Your task to perform on an android device: Go to accessibility settings Image 0: 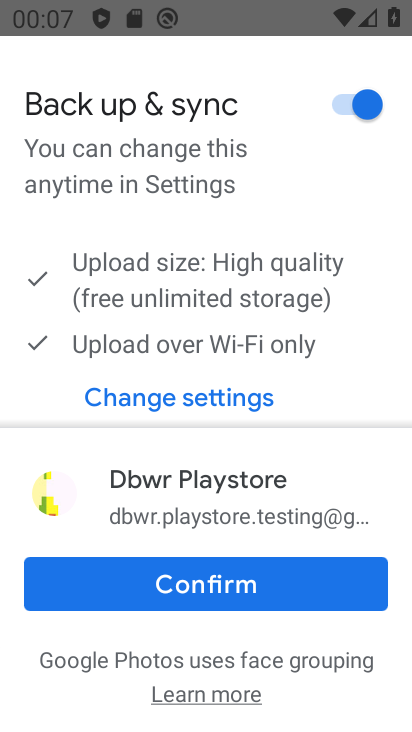
Step 0: press home button
Your task to perform on an android device: Go to accessibility settings Image 1: 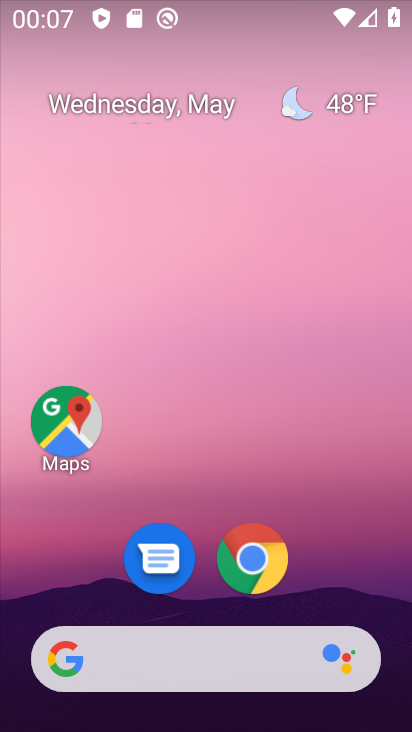
Step 1: drag from (372, 563) to (371, 138)
Your task to perform on an android device: Go to accessibility settings Image 2: 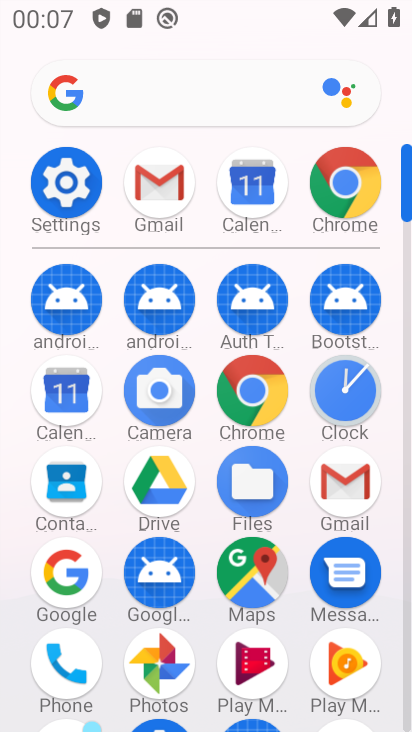
Step 2: click (46, 183)
Your task to perform on an android device: Go to accessibility settings Image 3: 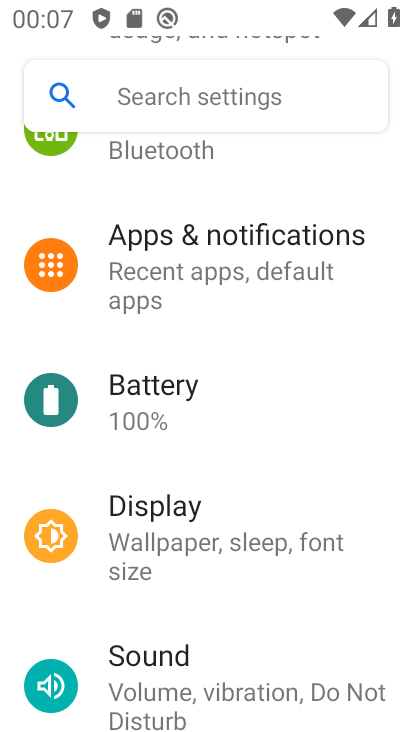
Step 3: drag from (250, 211) to (267, 483)
Your task to perform on an android device: Go to accessibility settings Image 4: 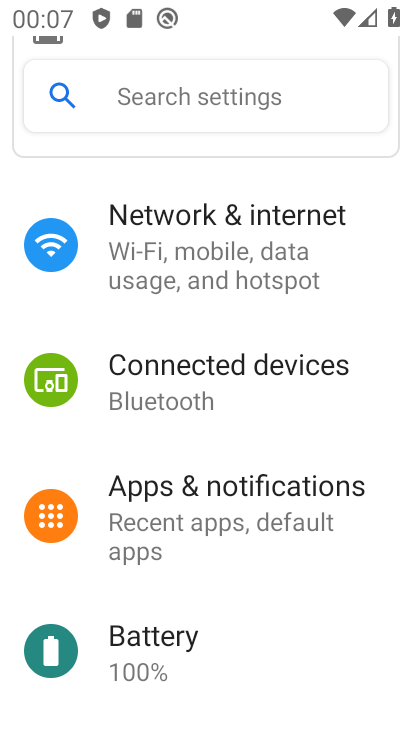
Step 4: drag from (254, 571) to (256, 338)
Your task to perform on an android device: Go to accessibility settings Image 5: 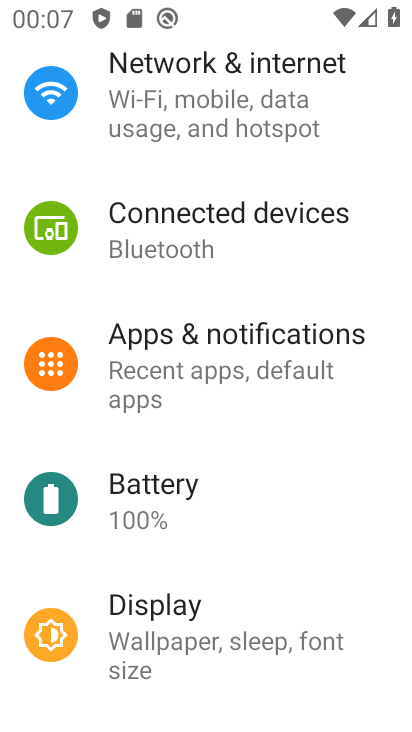
Step 5: drag from (270, 608) to (286, 259)
Your task to perform on an android device: Go to accessibility settings Image 6: 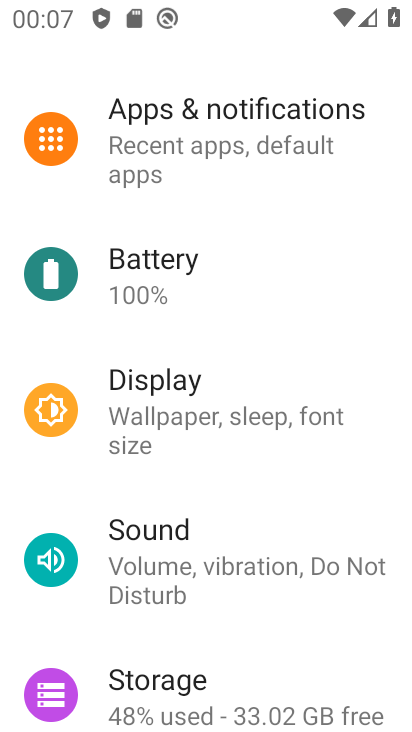
Step 6: drag from (293, 651) to (284, 278)
Your task to perform on an android device: Go to accessibility settings Image 7: 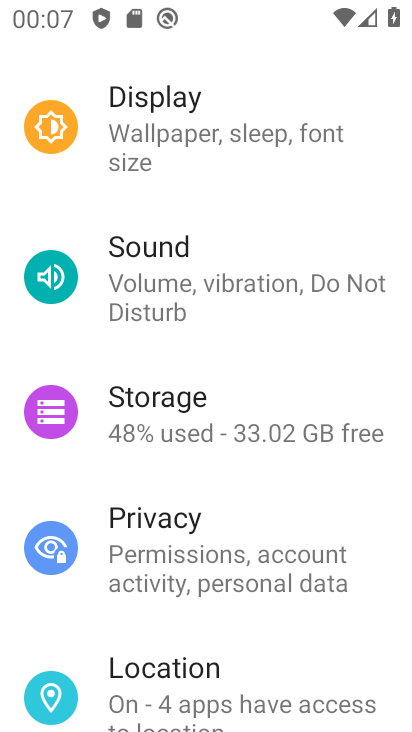
Step 7: drag from (269, 652) to (298, 220)
Your task to perform on an android device: Go to accessibility settings Image 8: 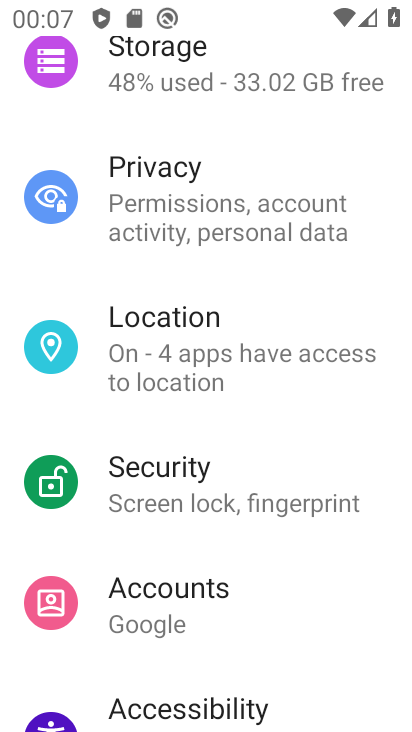
Step 8: drag from (265, 672) to (282, 316)
Your task to perform on an android device: Go to accessibility settings Image 9: 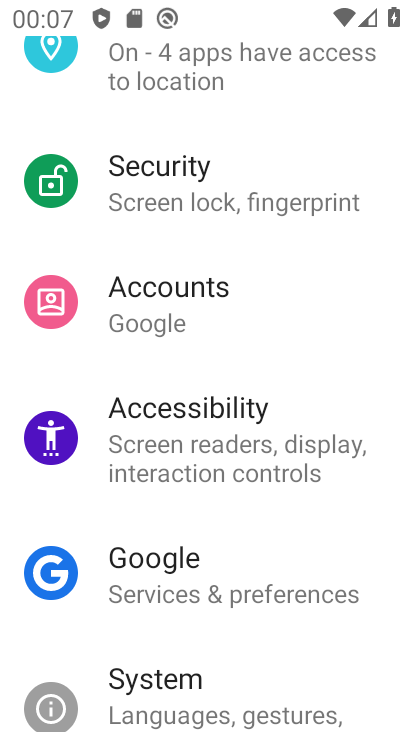
Step 9: click (245, 419)
Your task to perform on an android device: Go to accessibility settings Image 10: 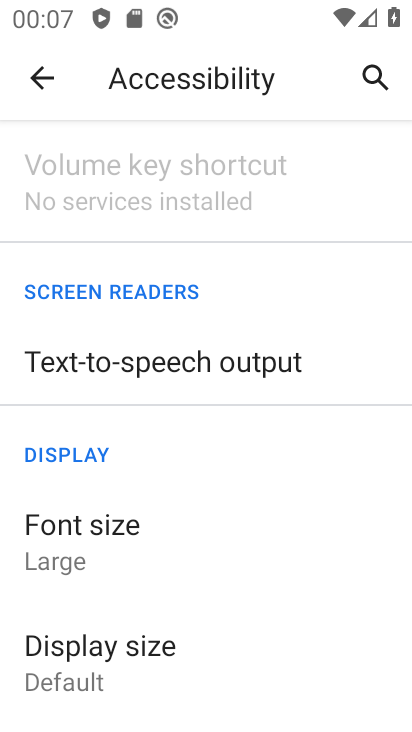
Step 10: task complete